Your task to perform on an android device: Open my contact list Image 0: 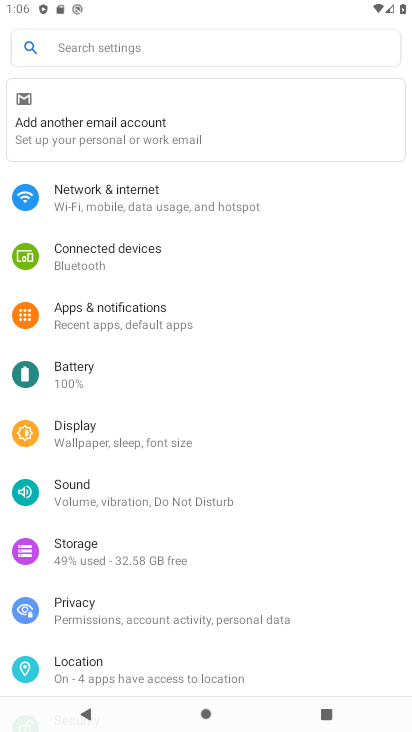
Step 0: press home button
Your task to perform on an android device: Open my contact list Image 1: 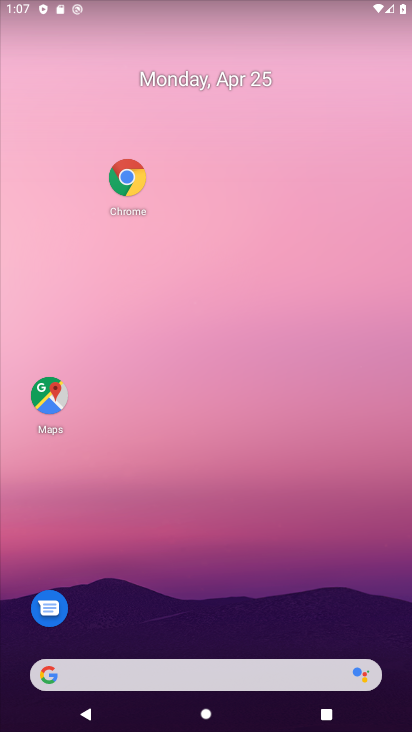
Step 1: drag from (290, 576) to (284, 32)
Your task to perform on an android device: Open my contact list Image 2: 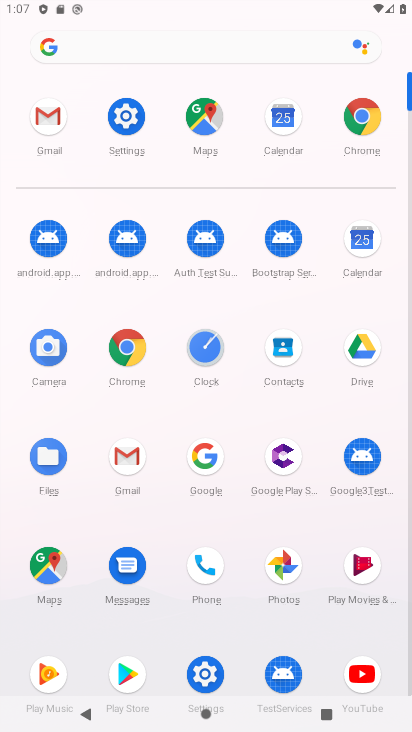
Step 2: click (282, 342)
Your task to perform on an android device: Open my contact list Image 3: 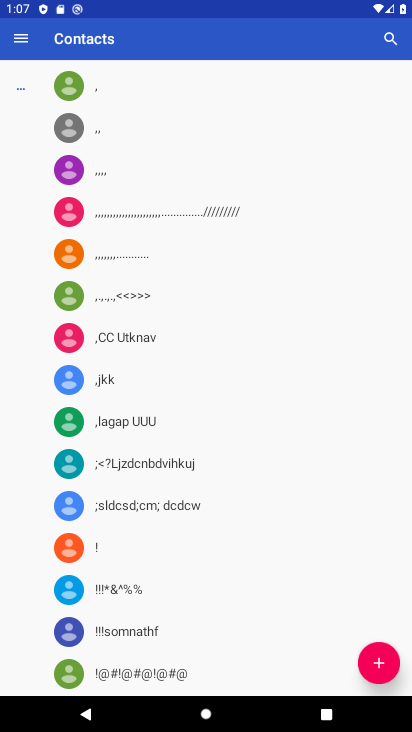
Step 3: task complete